Your task to perform on an android device: Open CNN.com Image 0: 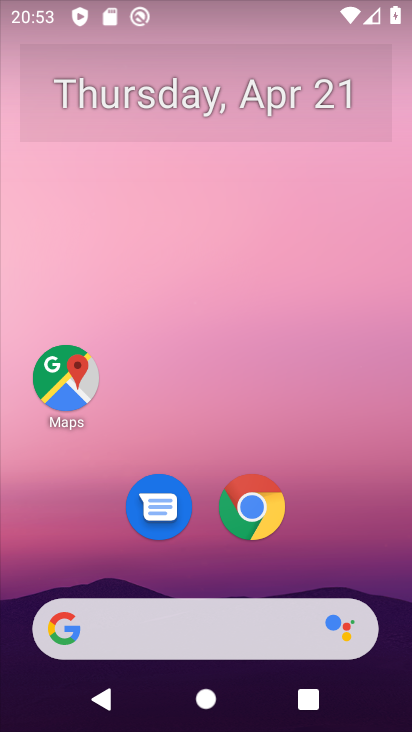
Step 0: click (258, 508)
Your task to perform on an android device: Open CNN.com Image 1: 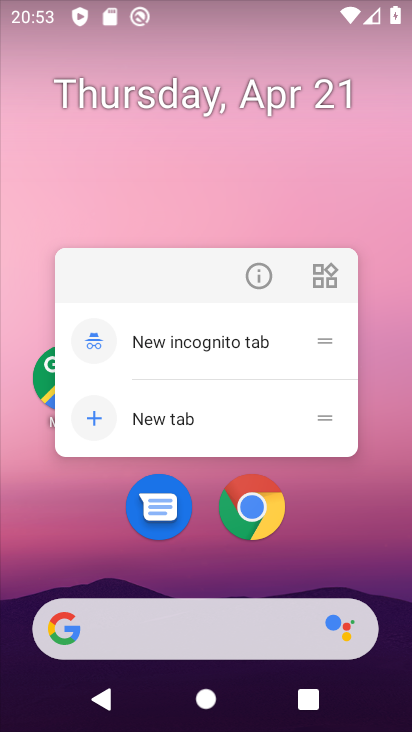
Step 1: click (255, 512)
Your task to perform on an android device: Open CNN.com Image 2: 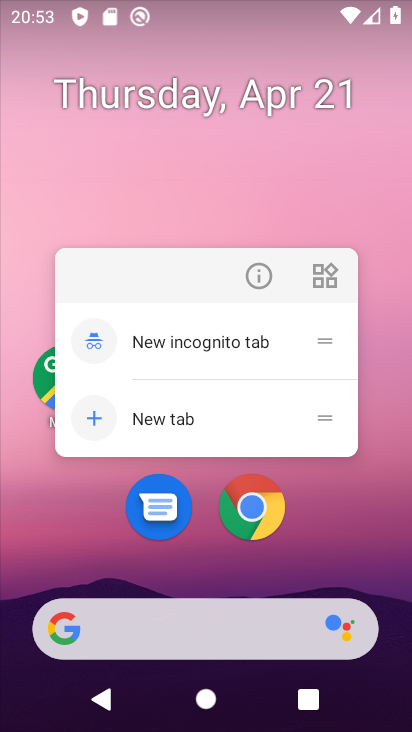
Step 2: click (255, 509)
Your task to perform on an android device: Open CNN.com Image 3: 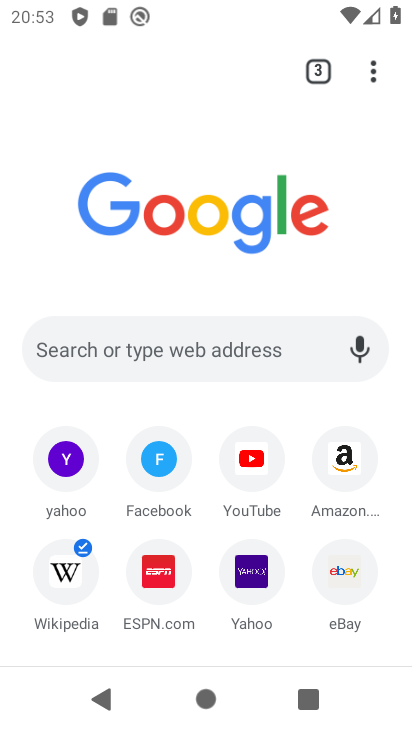
Step 3: click (136, 343)
Your task to perform on an android device: Open CNN.com Image 4: 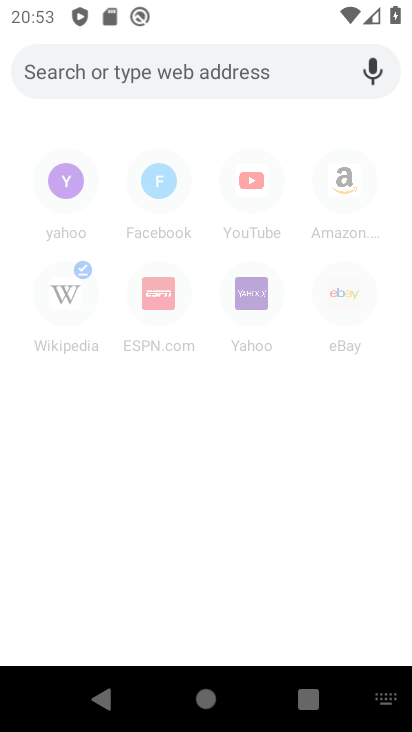
Step 4: type "cnn.com"
Your task to perform on an android device: Open CNN.com Image 5: 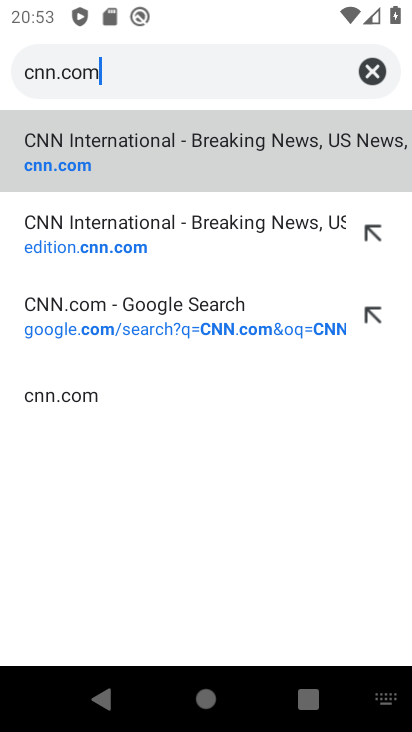
Step 5: click (213, 147)
Your task to perform on an android device: Open CNN.com Image 6: 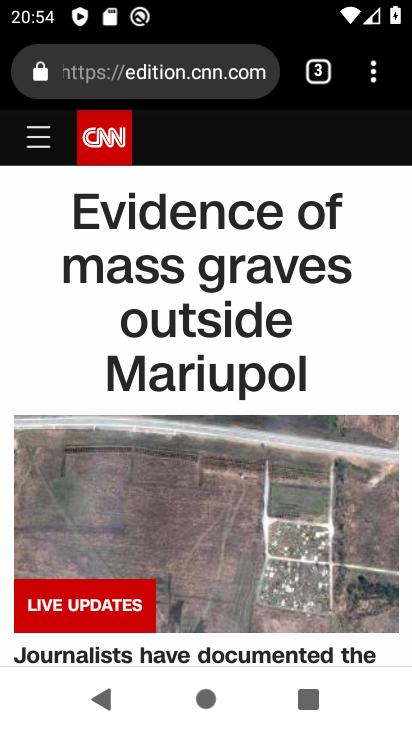
Step 6: task complete